Your task to perform on an android device: turn pop-ups on in chrome Image 0: 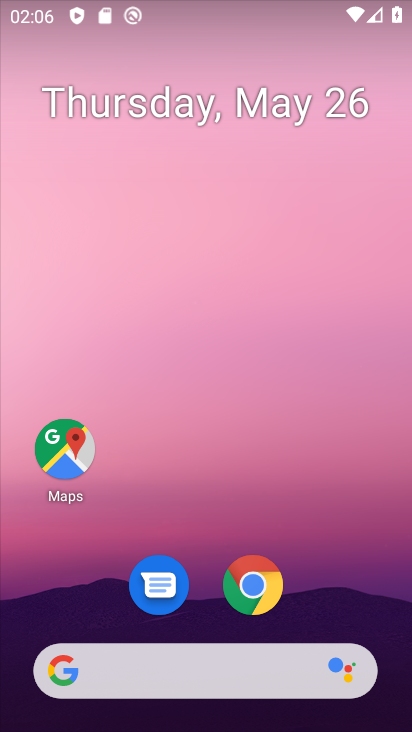
Step 0: click (263, 580)
Your task to perform on an android device: turn pop-ups on in chrome Image 1: 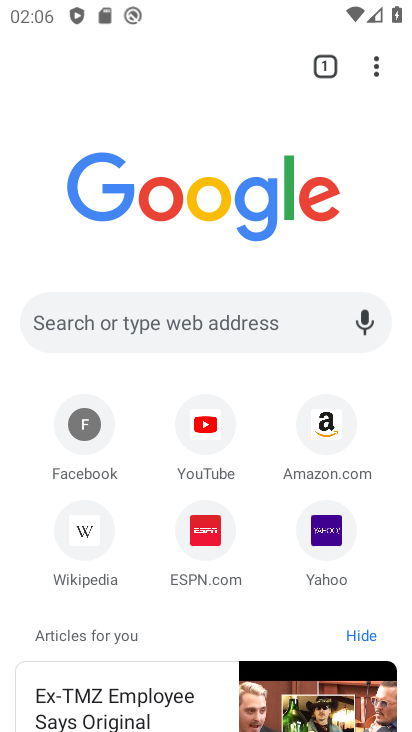
Step 1: click (368, 68)
Your task to perform on an android device: turn pop-ups on in chrome Image 2: 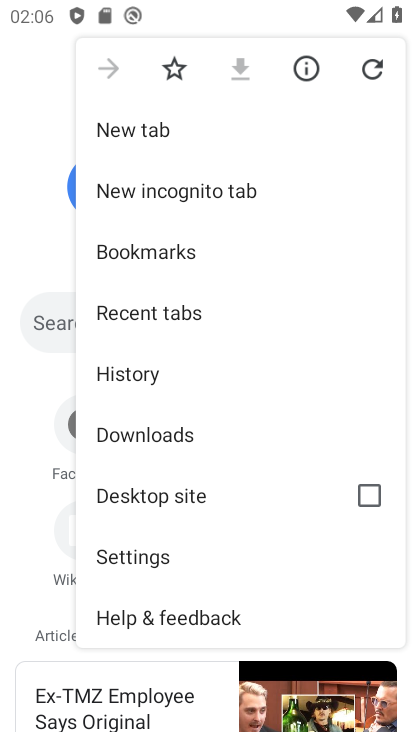
Step 2: click (201, 554)
Your task to perform on an android device: turn pop-ups on in chrome Image 3: 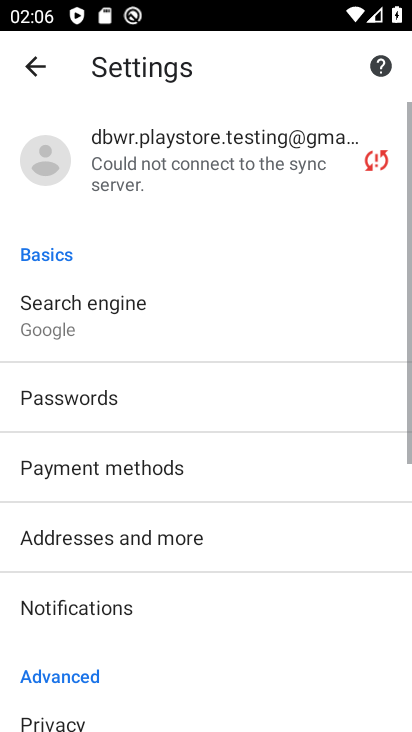
Step 3: drag from (222, 623) to (298, 220)
Your task to perform on an android device: turn pop-ups on in chrome Image 4: 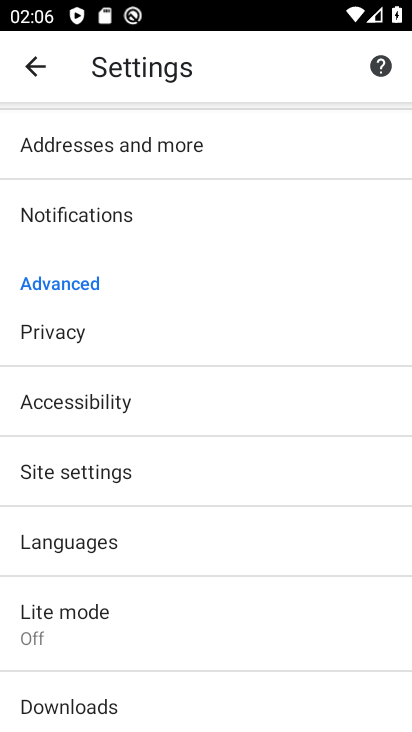
Step 4: click (217, 482)
Your task to perform on an android device: turn pop-ups on in chrome Image 5: 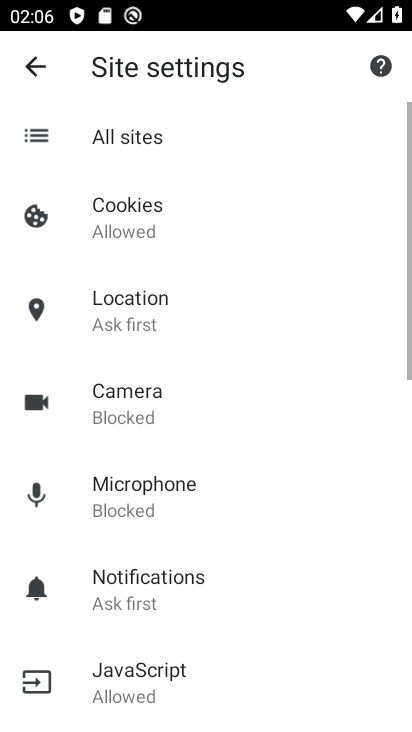
Step 5: drag from (229, 554) to (245, 307)
Your task to perform on an android device: turn pop-ups on in chrome Image 6: 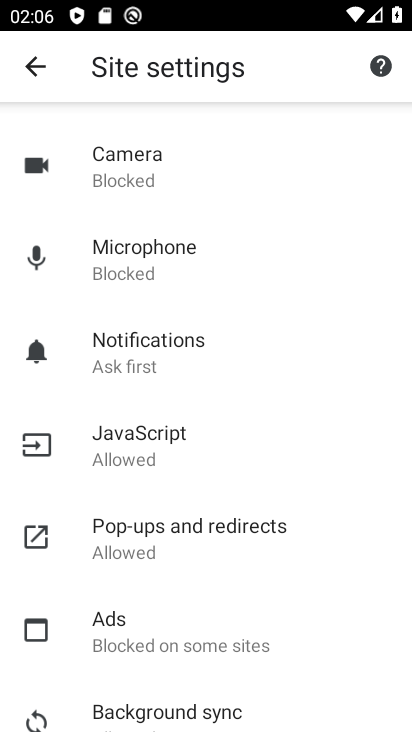
Step 6: click (223, 528)
Your task to perform on an android device: turn pop-ups on in chrome Image 7: 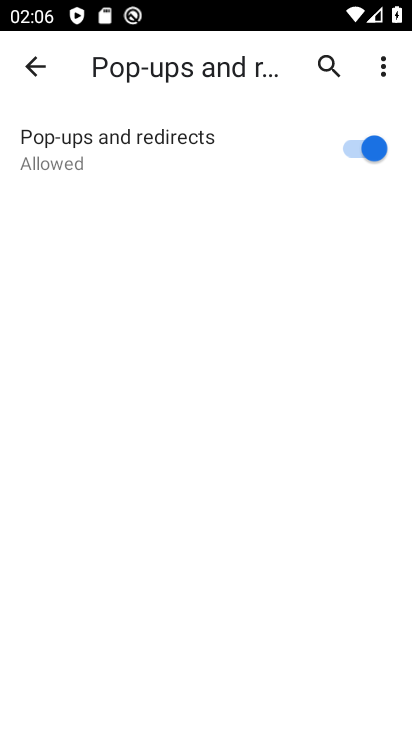
Step 7: task complete